Your task to perform on an android device: What is the recent news? Image 0: 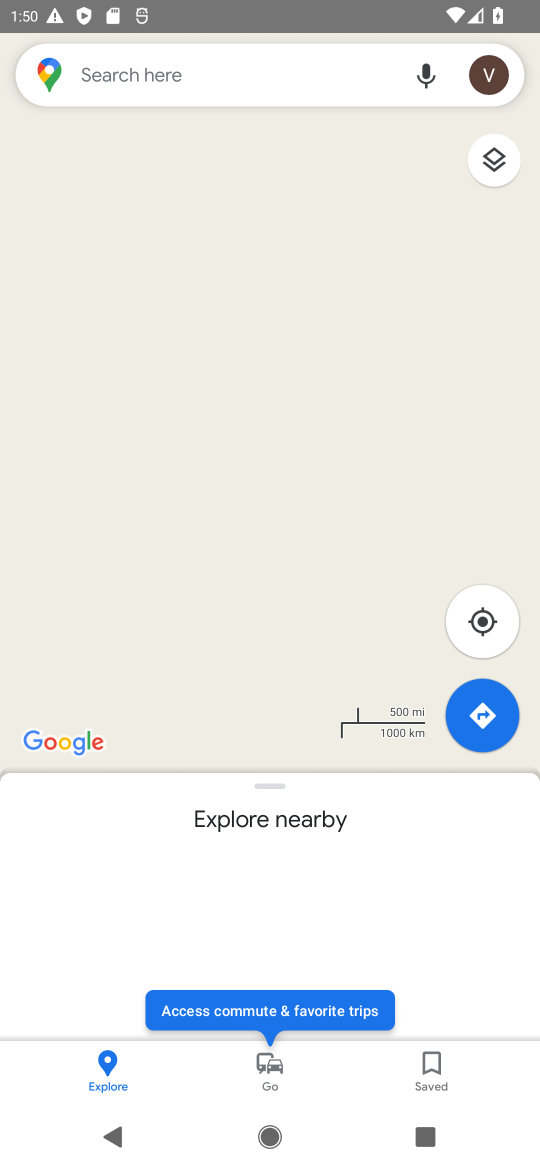
Step 0: press home button
Your task to perform on an android device: What is the recent news? Image 1: 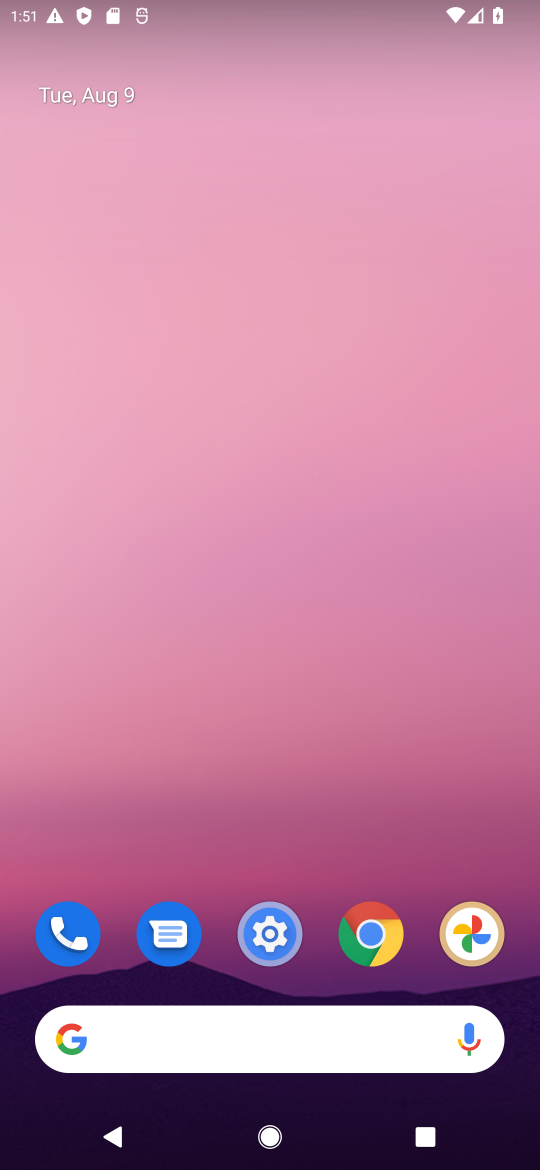
Step 1: drag from (313, 988) to (534, 175)
Your task to perform on an android device: What is the recent news? Image 2: 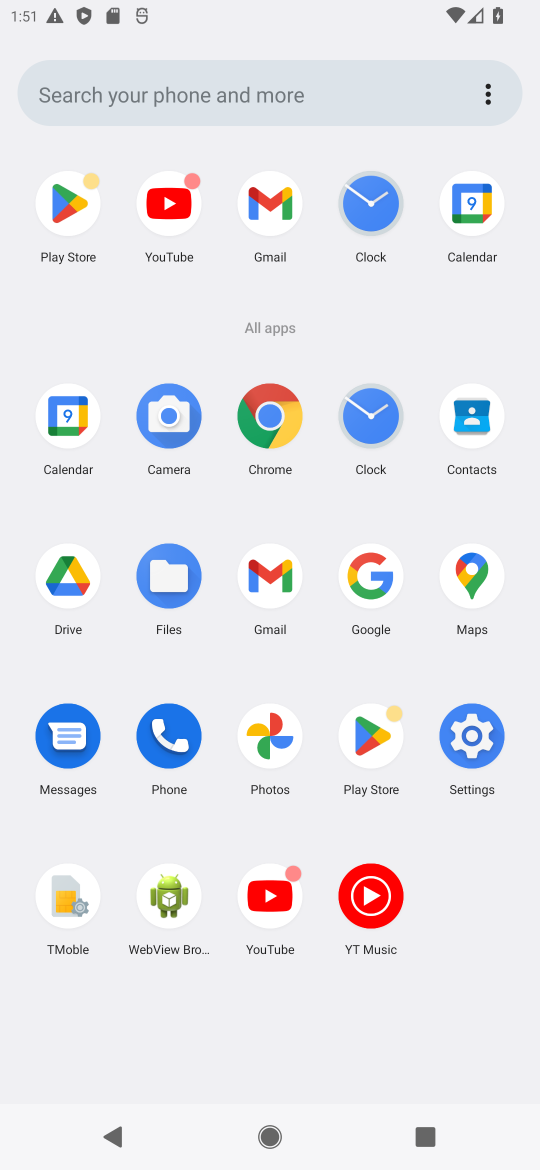
Step 2: click (252, 102)
Your task to perform on an android device: What is the recent news? Image 3: 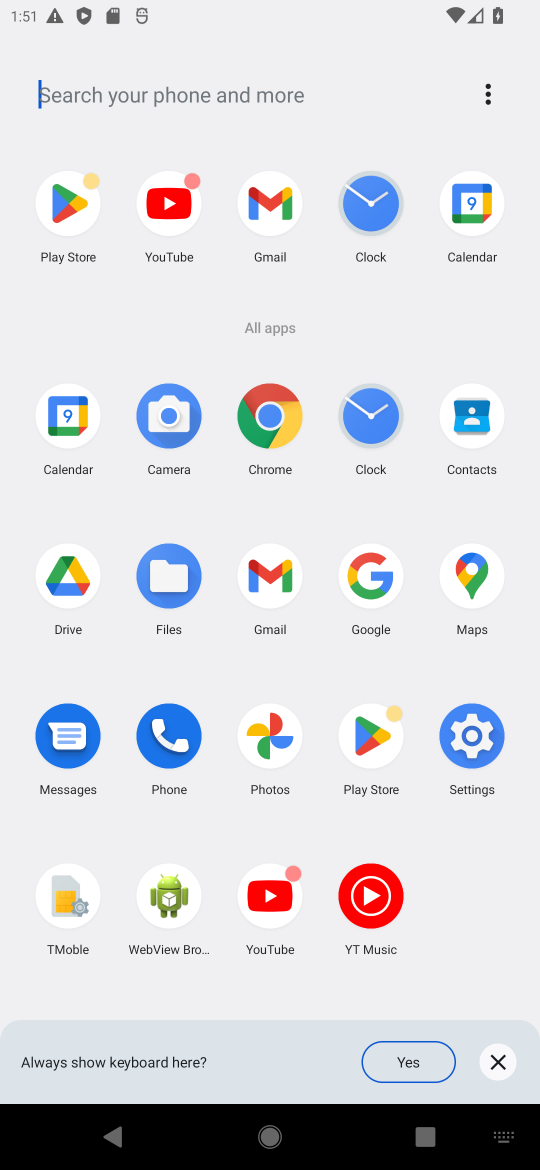
Step 3: type "news"
Your task to perform on an android device: What is the recent news? Image 4: 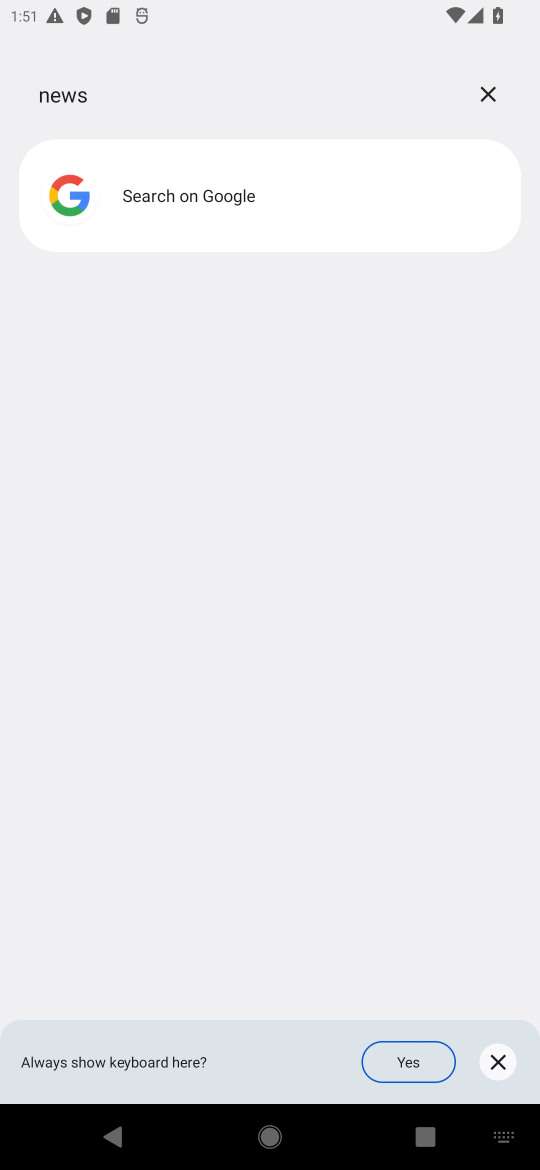
Step 4: task complete